Your task to perform on an android device: open a bookmark in the chrome app Image 0: 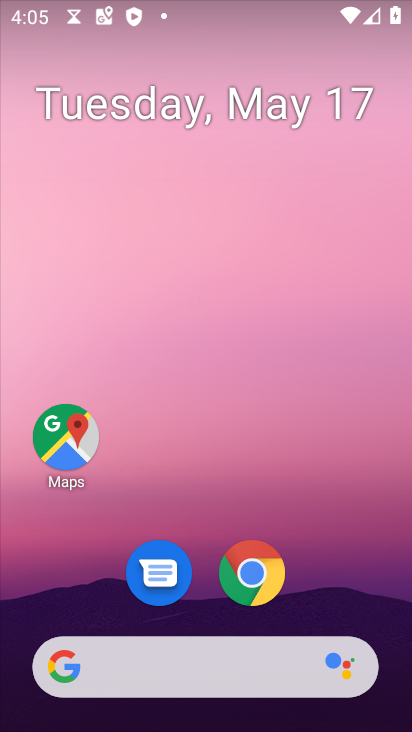
Step 0: click (248, 576)
Your task to perform on an android device: open a bookmark in the chrome app Image 1: 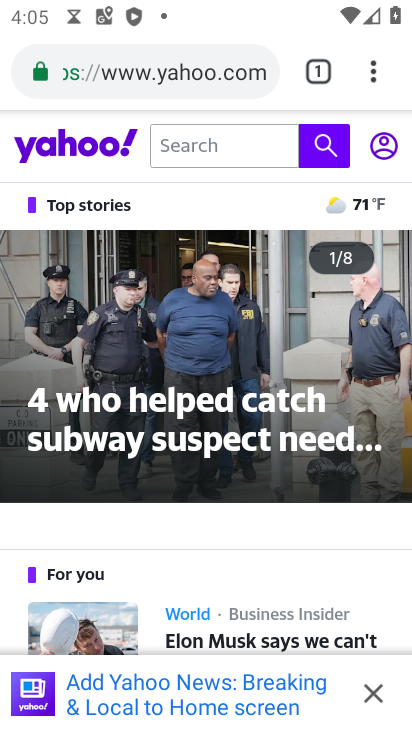
Step 1: click (380, 70)
Your task to perform on an android device: open a bookmark in the chrome app Image 2: 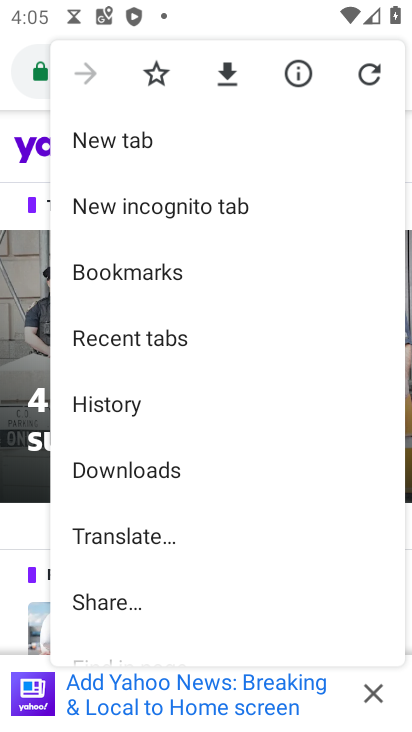
Step 2: click (245, 279)
Your task to perform on an android device: open a bookmark in the chrome app Image 3: 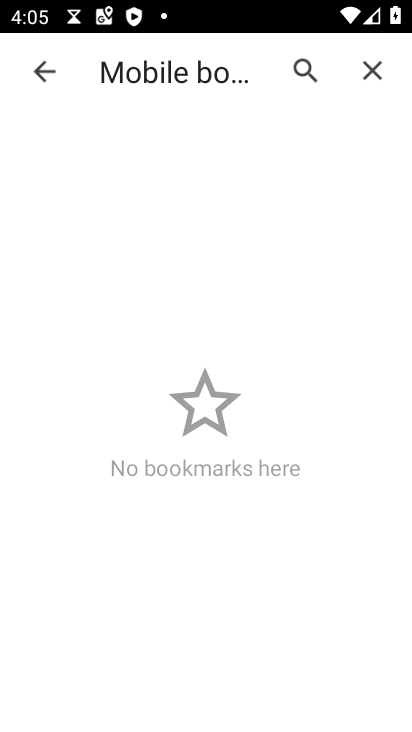
Step 3: task complete